Your task to perform on an android device: Open Youtube and go to "Your channel" Image 0: 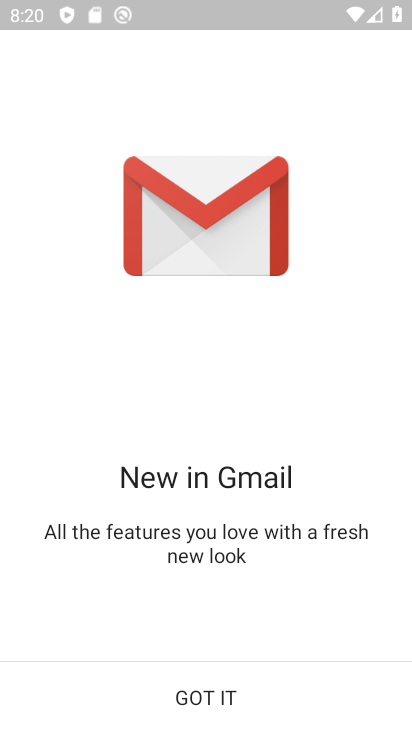
Step 0: click (201, 697)
Your task to perform on an android device: Open Youtube and go to "Your channel" Image 1: 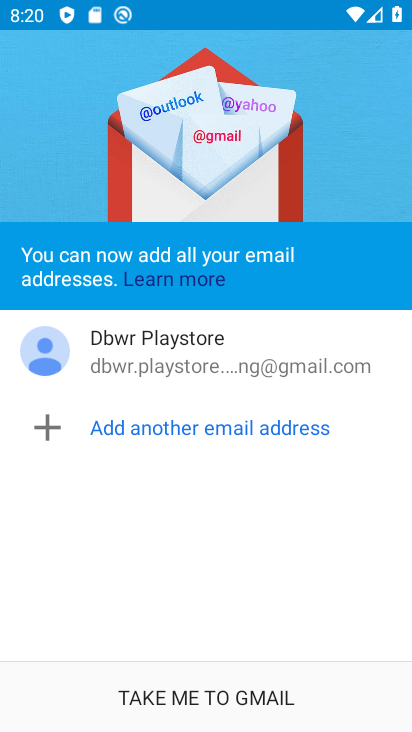
Step 1: click (213, 679)
Your task to perform on an android device: Open Youtube and go to "Your channel" Image 2: 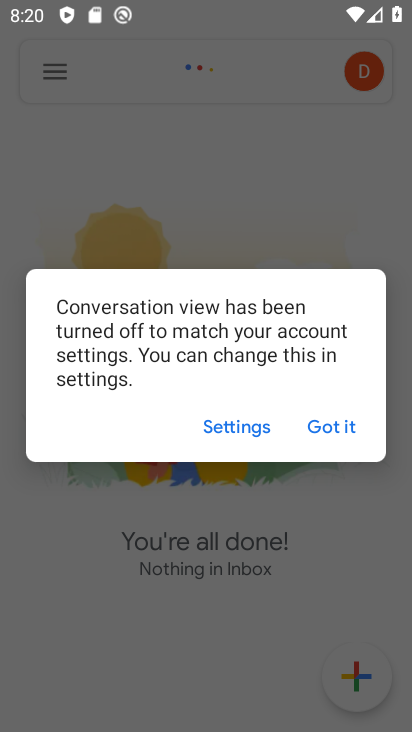
Step 2: press home button
Your task to perform on an android device: Open Youtube and go to "Your channel" Image 3: 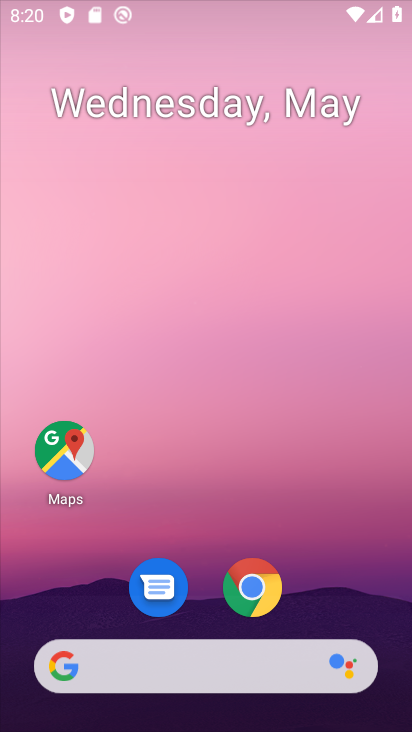
Step 3: drag from (286, 606) to (321, 154)
Your task to perform on an android device: Open Youtube and go to "Your channel" Image 4: 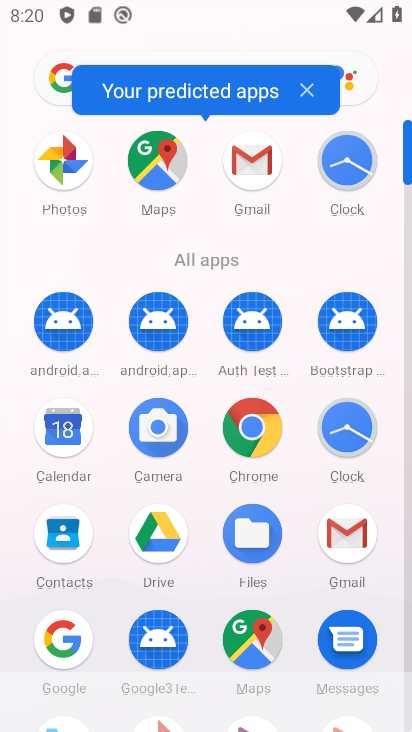
Step 4: drag from (284, 599) to (330, 45)
Your task to perform on an android device: Open Youtube and go to "Your channel" Image 5: 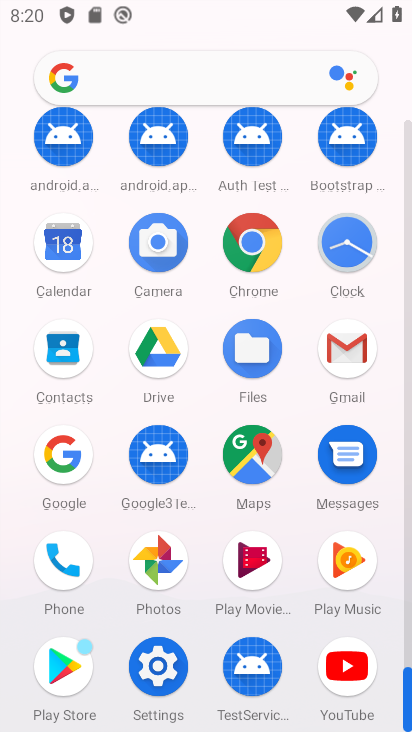
Step 5: click (345, 672)
Your task to perform on an android device: Open Youtube and go to "Your channel" Image 6: 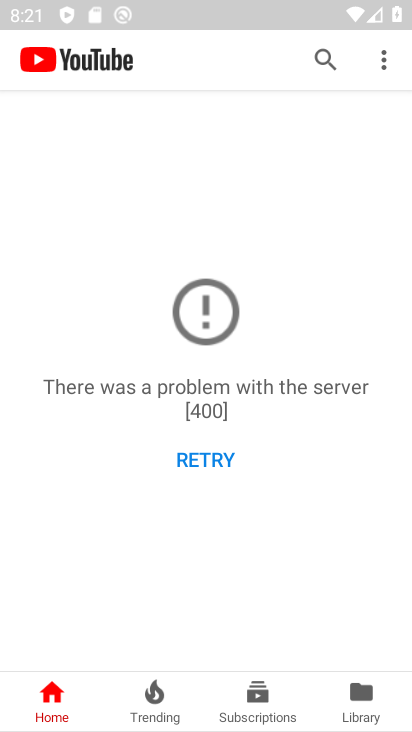
Step 6: click (214, 449)
Your task to perform on an android device: Open Youtube and go to "Your channel" Image 7: 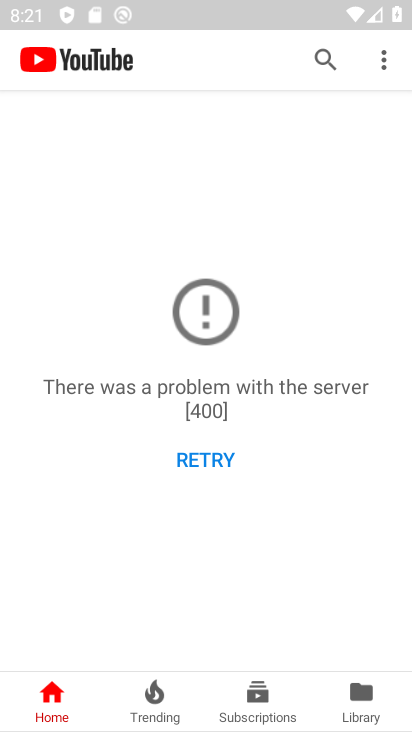
Step 7: click (216, 462)
Your task to perform on an android device: Open Youtube and go to "Your channel" Image 8: 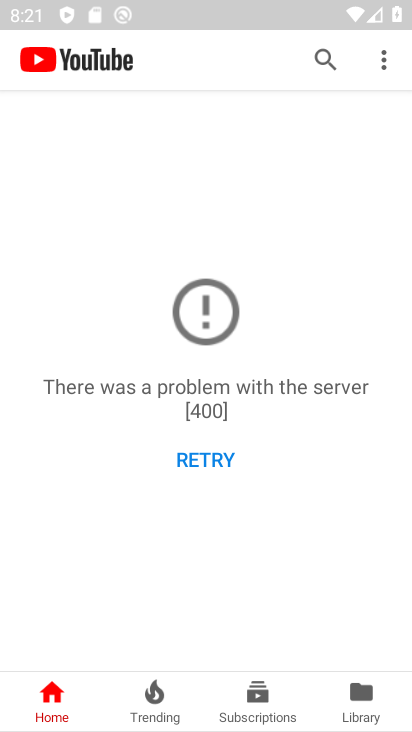
Step 8: click (216, 461)
Your task to perform on an android device: Open Youtube and go to "Your channel" Image 9: 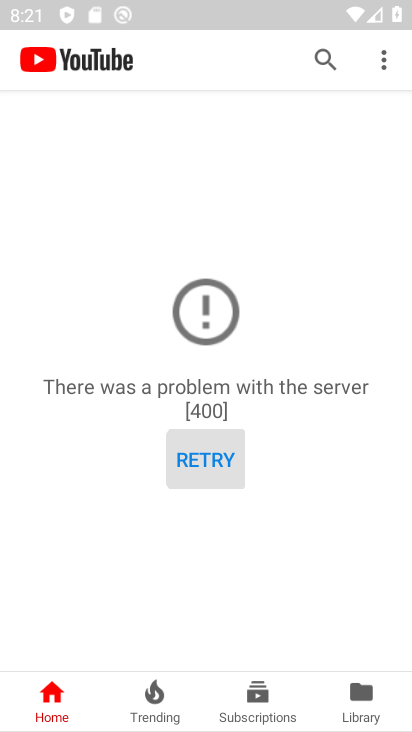
Step 9: click (216, 461)
Your task to perform on an android device: Open Youtube and go to "Your channel" Image 10: 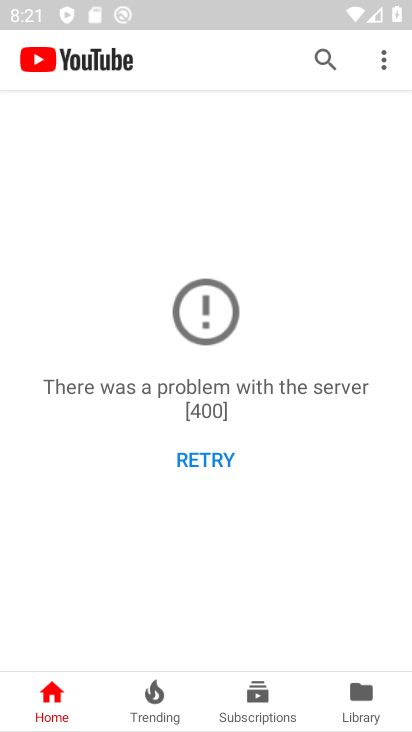
Step 10: task complete